Your task to perform on an android device: turn on the 24-hour format for clock Image 0: 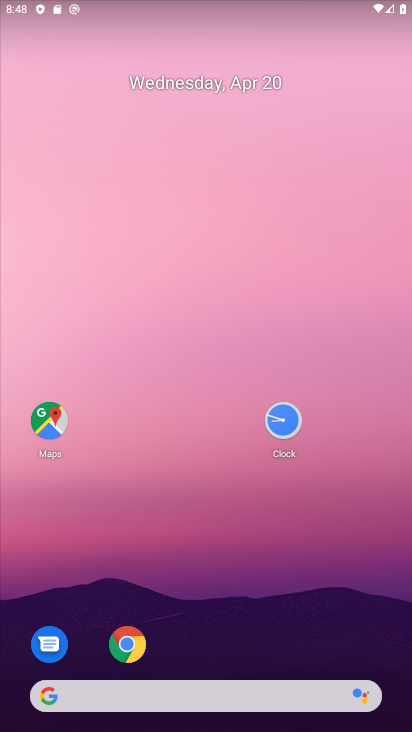
Step 0: drag from (206, 649) to (253, 72)
Your task to perform on an android device: turn on the 24-hour format for clock Image 1: 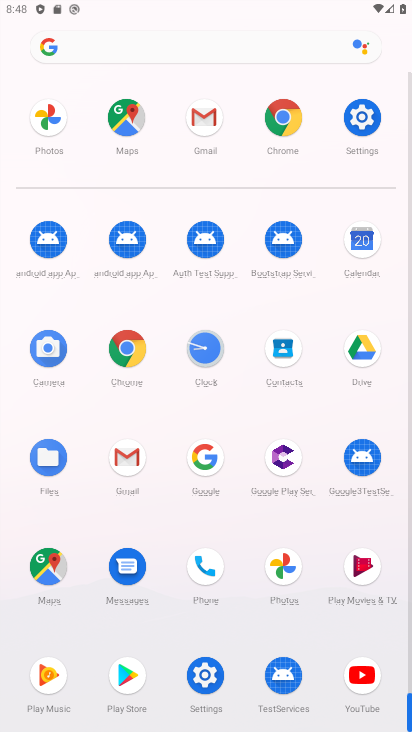
Step 1: click (206, 354)
Your task to perform on an android device: turn on the 24-hour format for clock Image 2: 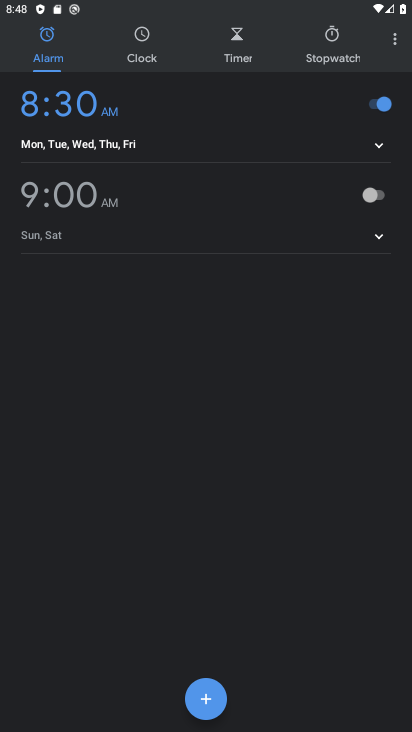
Step 2: click (389, 41)
Your task to perform on an android device: turn on the 24-hour format for clock Image 3: 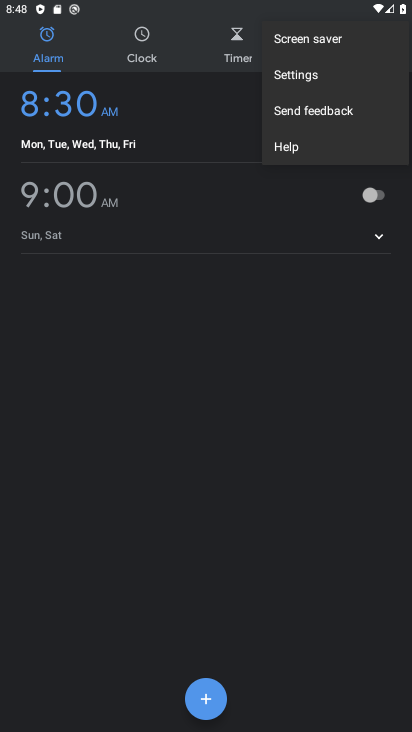
Step 3: click (301, 81)
Your task to perform on an android device: turn on the 24-hour format for clock Image 4: 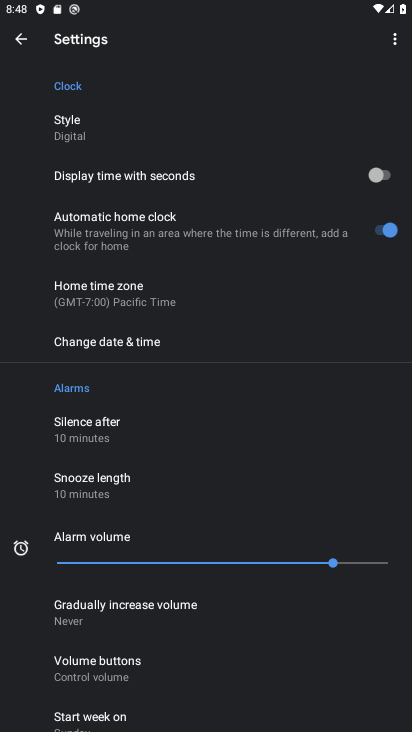
Step 4: click (133, 340)
Your task to perform on an android device: turn on the 24-hour format for clock Image 5: 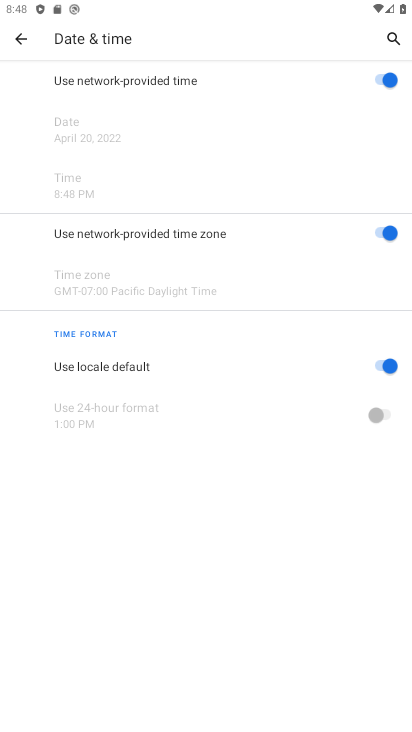
Step 5: click (379, 365)
Your task to perform on an android device: turn on the 24-hour format for clock Image 6: 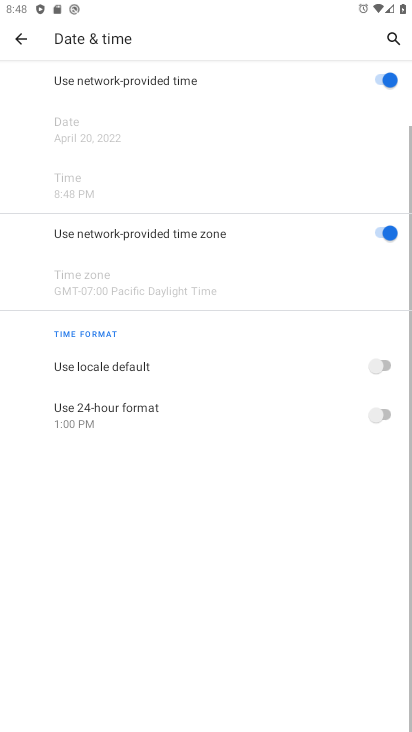
Step 6: click (385, 415)
Your task to perform on an android device: turn on the 24-hour format for clock Image 7: 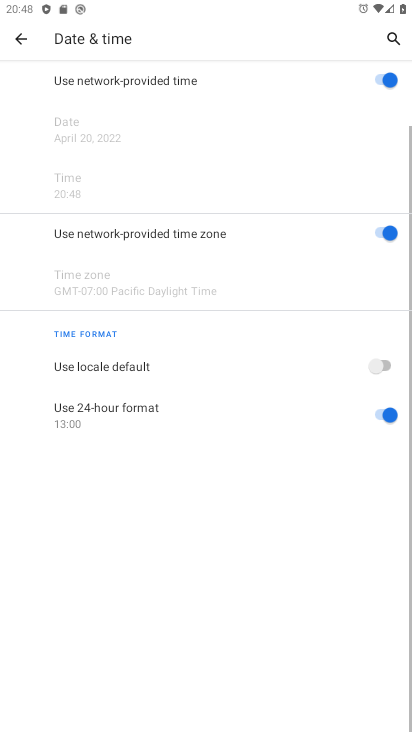
Step 7: task complete